Your task to perform on an android device: search for starred emails in the gmail app Image 0: 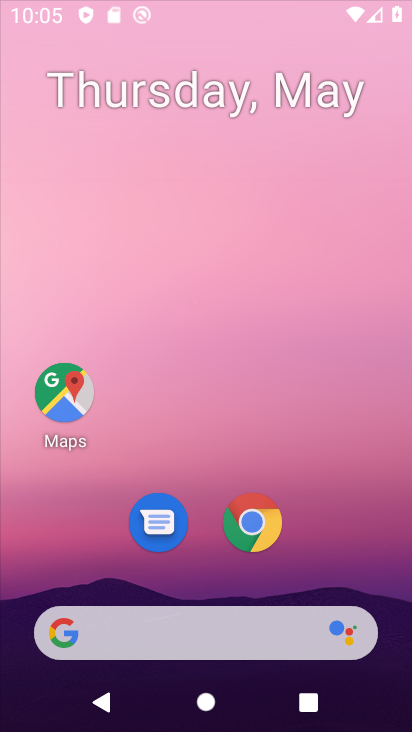
Step 0: drag from (252, 587) to (254, 106)
Your task to perform on an android device: search for starred emails in the gmail app Image 1: 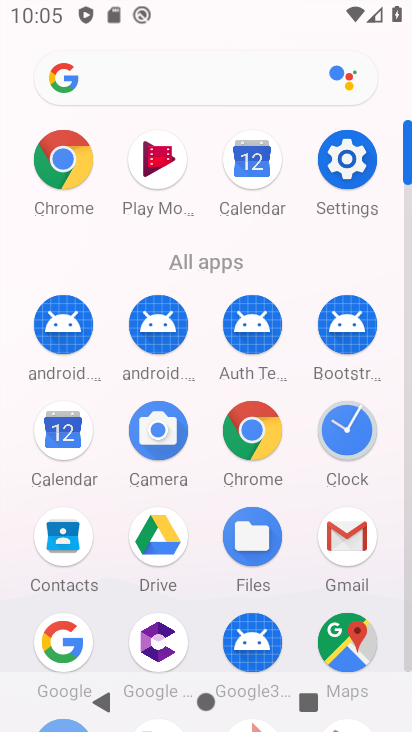
Step 1: click (328, 540)
Your task to perform on an android device: search for starred emails in the gmail app Image 2: 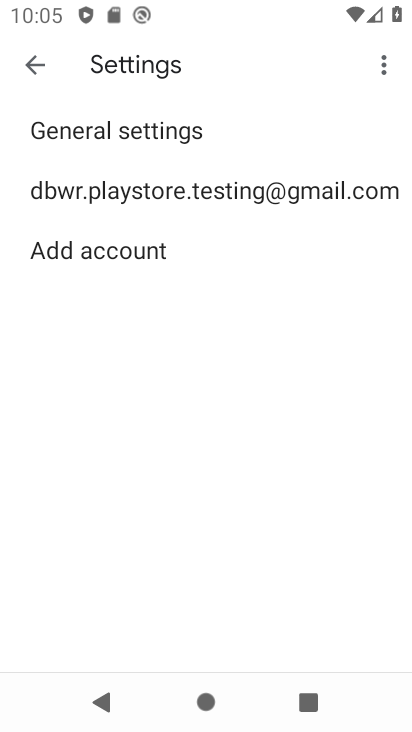
Step 2: click (179, 194)
Your task to perform on an android device: search for starred emails in the gmail app Image 3: 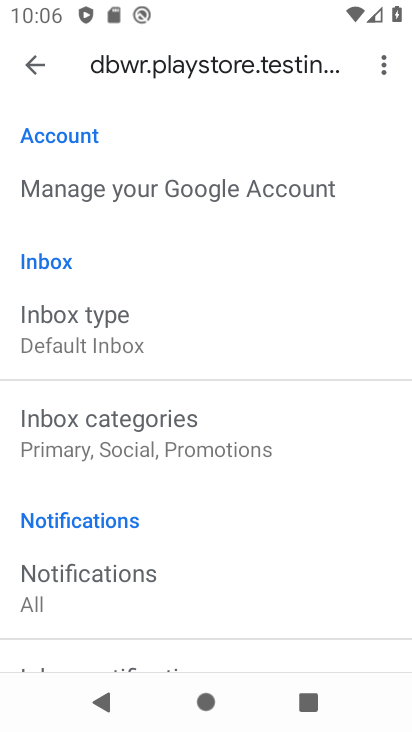
Step 3: drag from (129, 585) to (173, 219)
Your task to perform on an android device: search for starred emails in the gmail app Image 4: 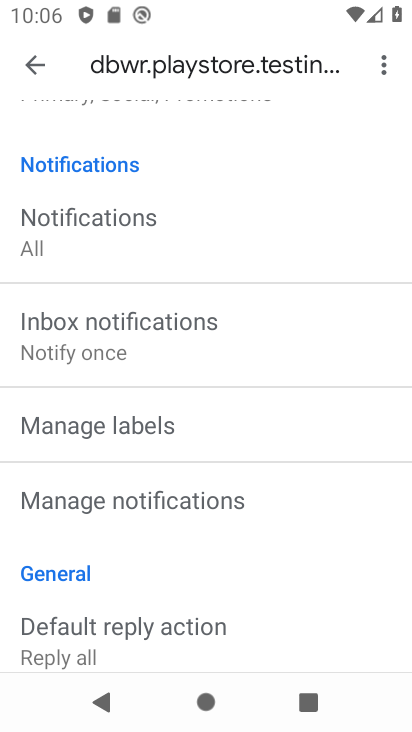
Step 4: drag from (168, 427) to (185, 267)
Your task to perform on an android device: search for starred emails in the gmail app Image 5: 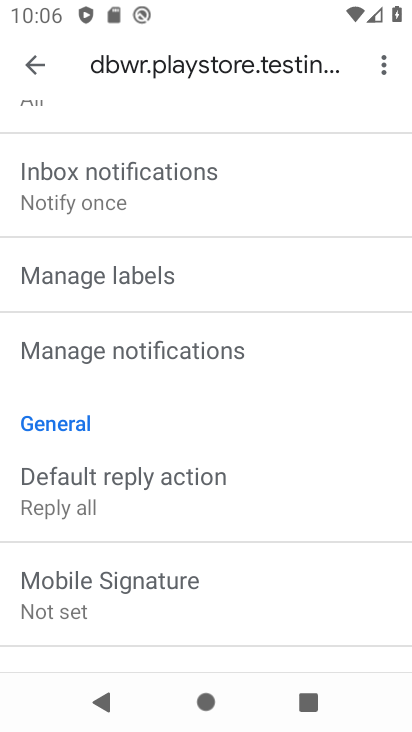
Step 5: drag from (145, 576) to (171, 288)
Your task to perform on an android device: search for starred emails in the gmail app Image 6: 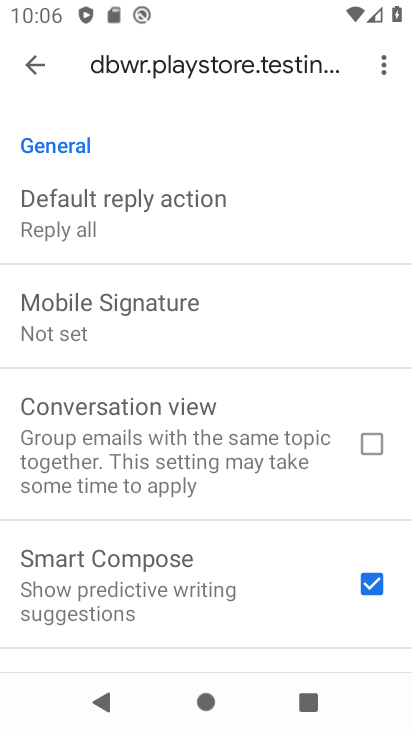
Step 6: drag from (157, 224) to (150, 619)
Your task to perform on an android device: search for starred emails in the gmail app Image 7: 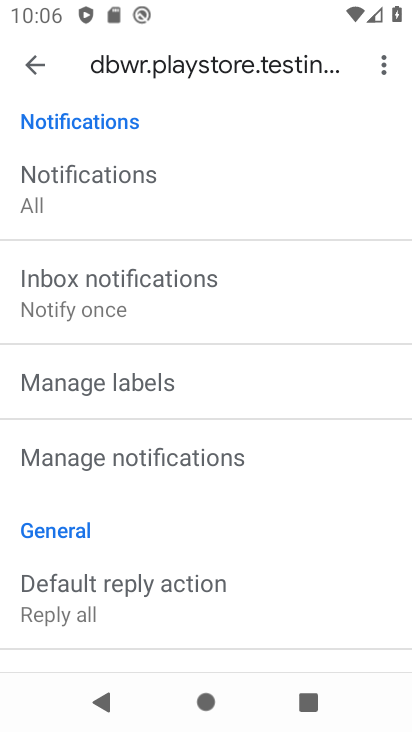
Step 7: drag from (198, 200) to (178, 579)
Your task to perform on an android device: search for starred emails in the gmail app Image 8: 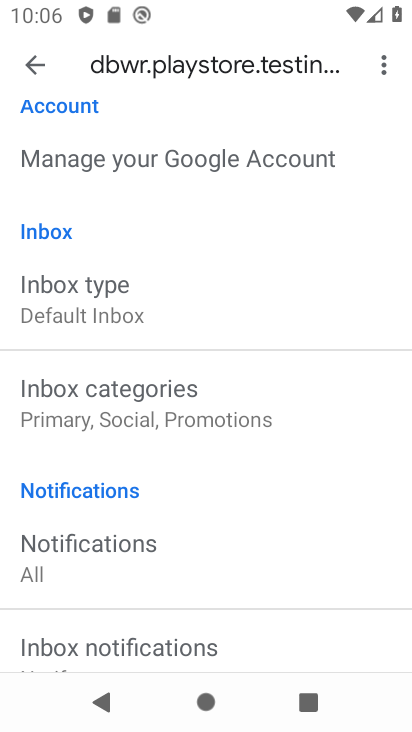
Step 8: click (38, 54)
Your task to perform on an android device: search for starred emails in the gmail app Image 9: 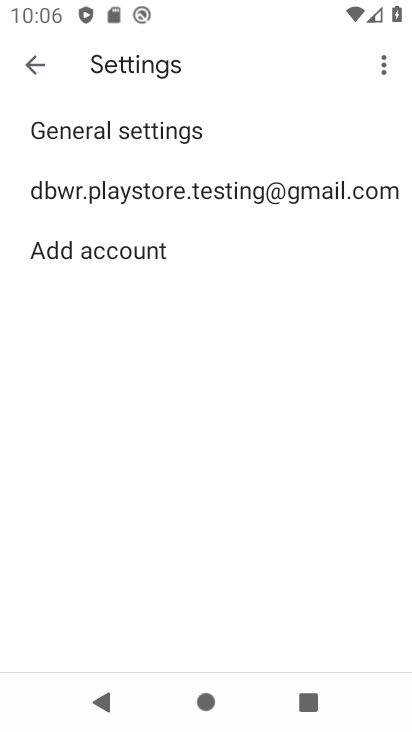
Step 9: click (37, 60)
Your task to perform on an android device: search for starred emails in the gmail app Image 10: 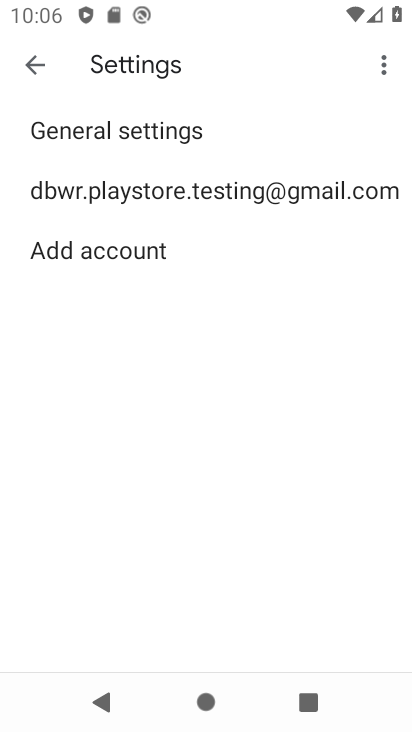
Step 10: click (33, 72)
Your task to perform on an android device: search for starred emails in the gmail app Image 11: 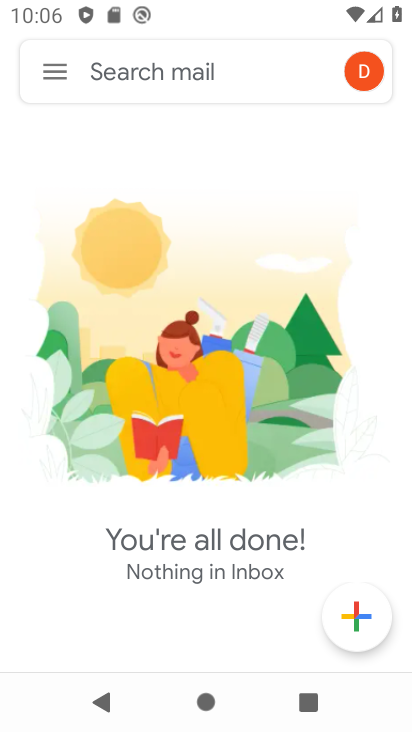
Step 11: click (34, 72)
Your task to perform on an android device: search for starred emails in the gmail app Image 12: 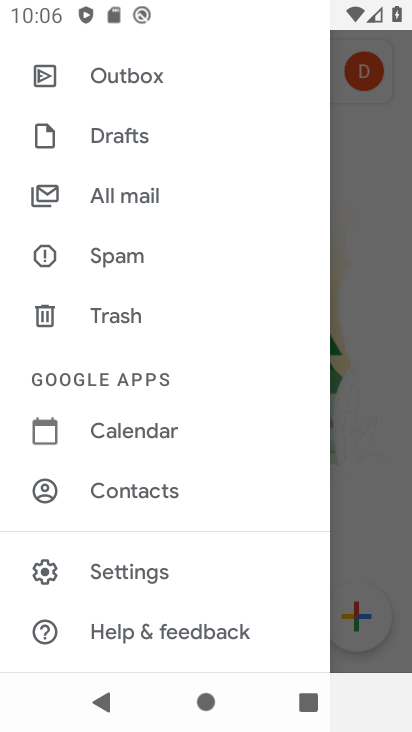
Step 12: drag from (176, 165) to (160, 486)
Your task to perform on an android device: search for starred emails in the gmail app Image 13: 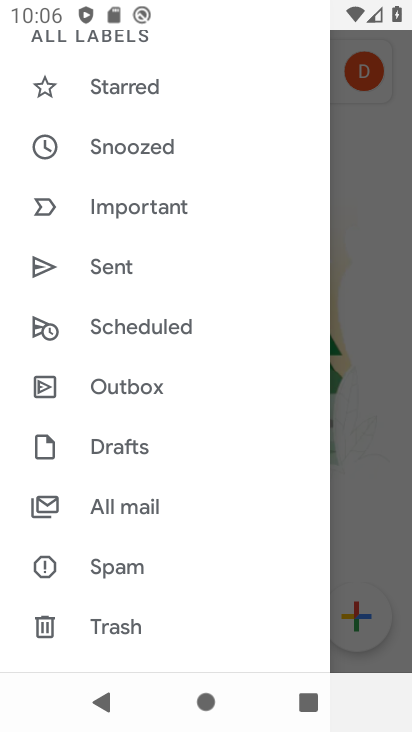
Step 13: click (134, 91)
Your task to perform on an android device: search for starred emails in the gmail app Image 14: 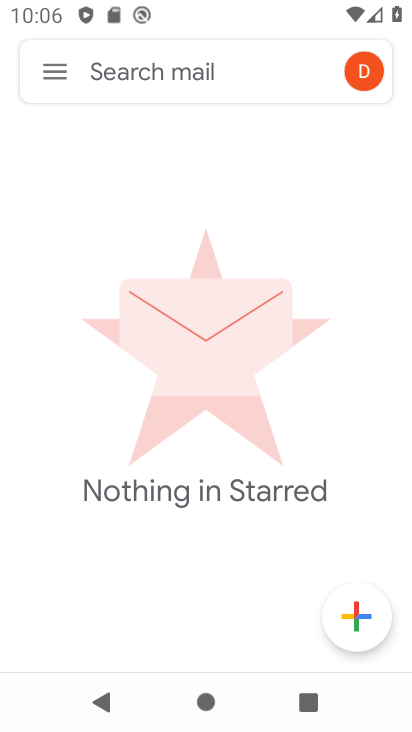
Step 14: task complete